Your task to perform on an android device: toggle wifi Image 0: 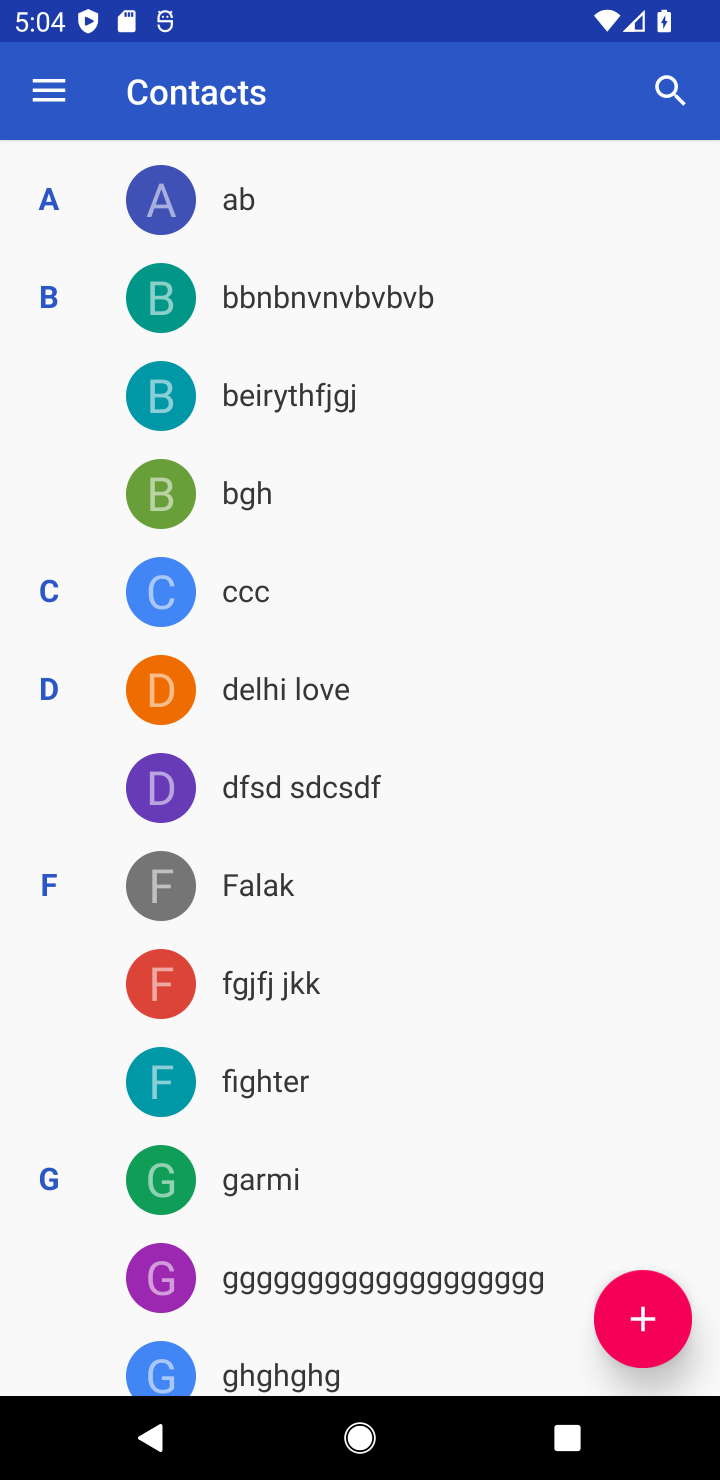
Step 0: press home button
Your task to perform on an android device: toggle wifi Image 1: 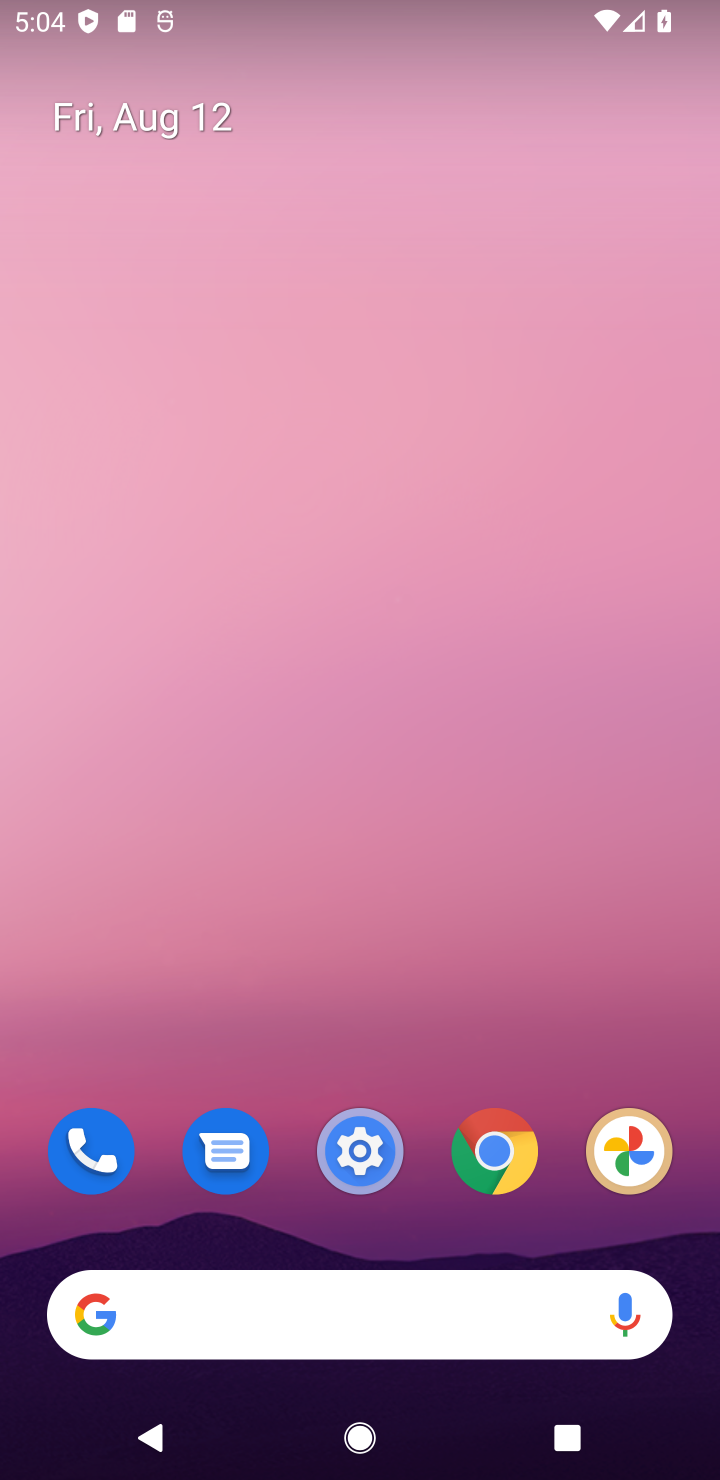
Step 1: drag from (558, 1053) to (521, 156)
Your task to perform on an android device: toggle wifi Image 2: 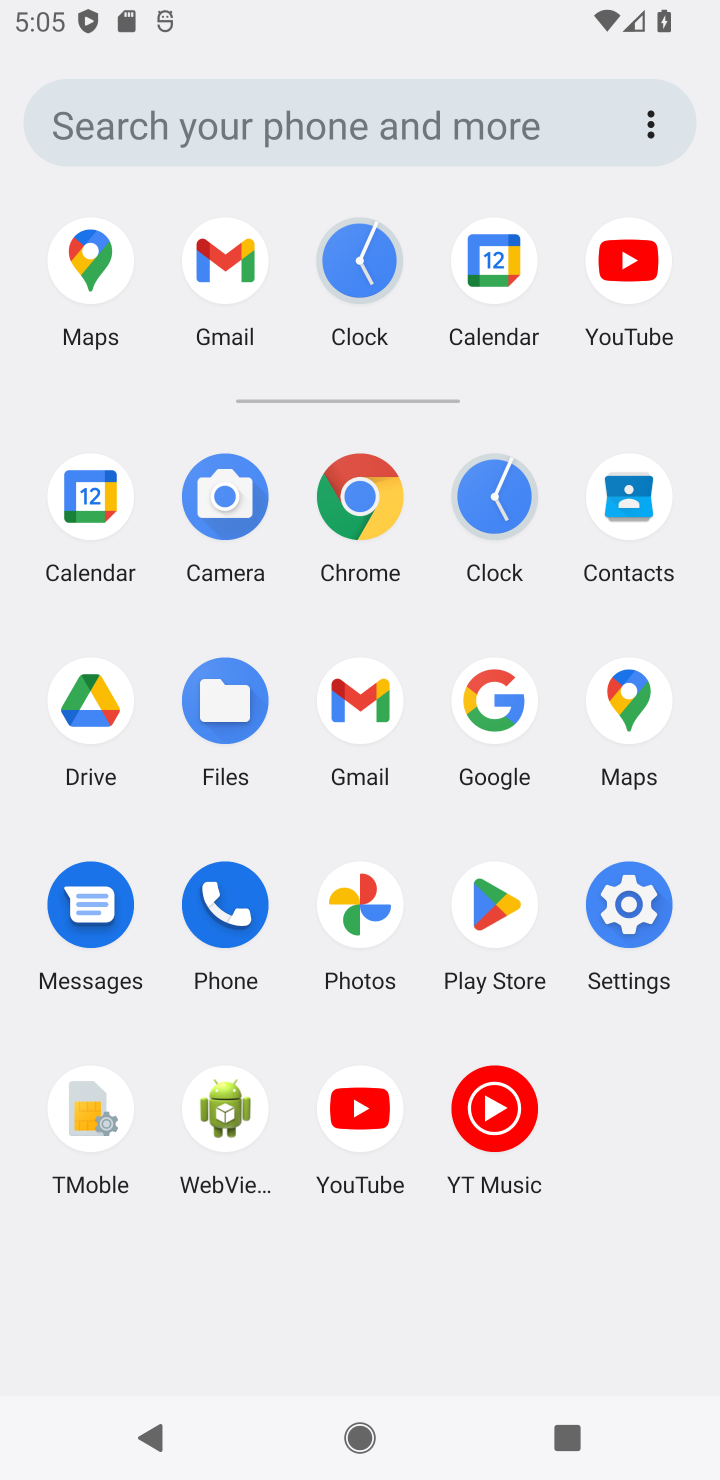
Step 2: click (611, 908)
Your task to perform on an android device: toggle wifi Image 3: 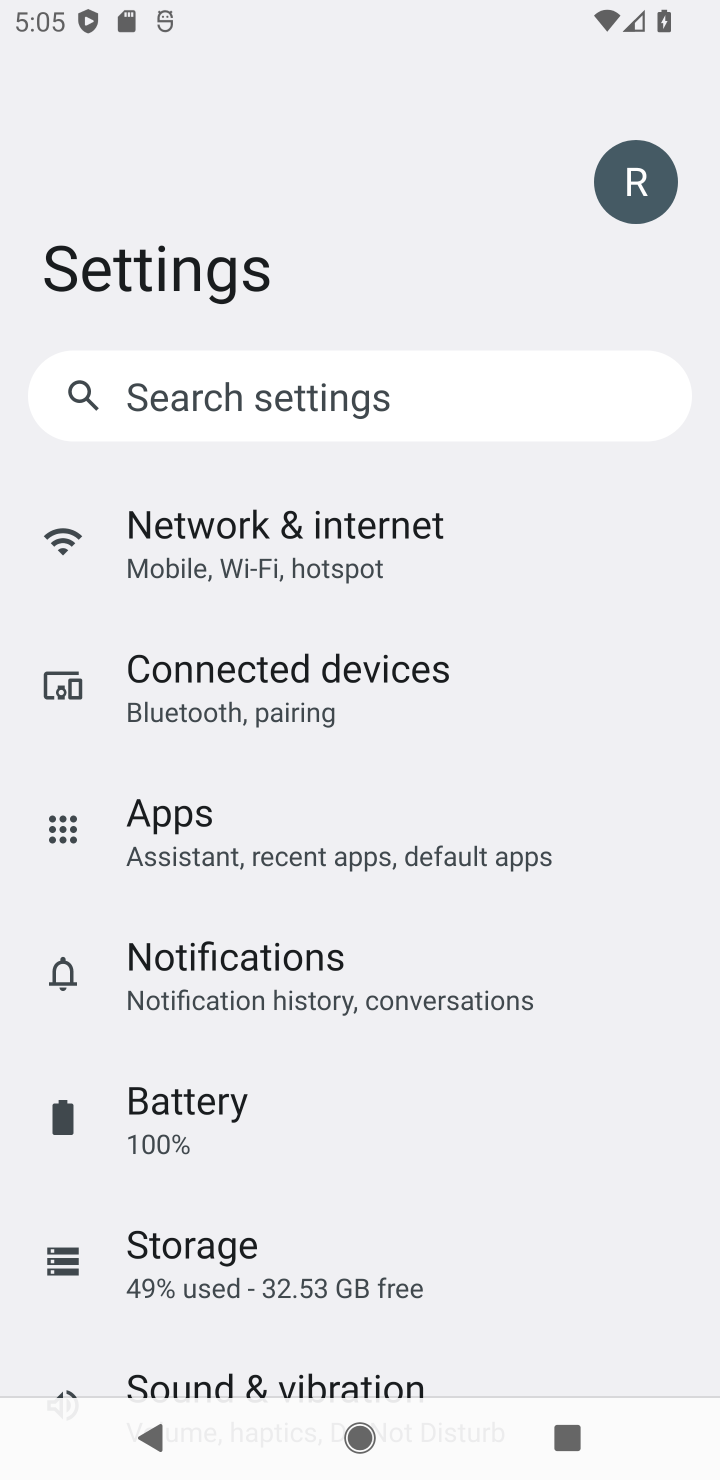
Step 3: click (426, 534)
Your task to perform on an android device: toggle wifi Image 4: 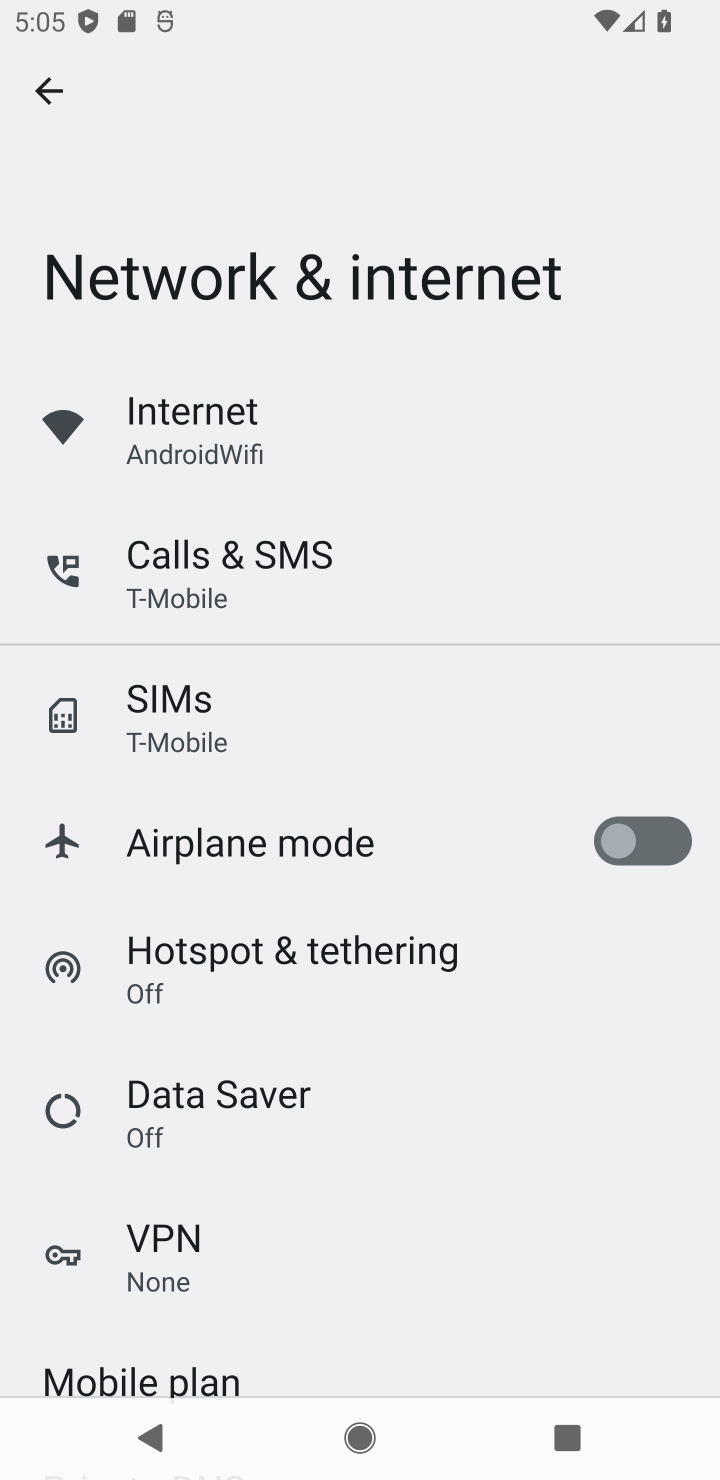
Step 4: click (223, 431)
Your task to perform on an android device: toggle wifi Image 5: 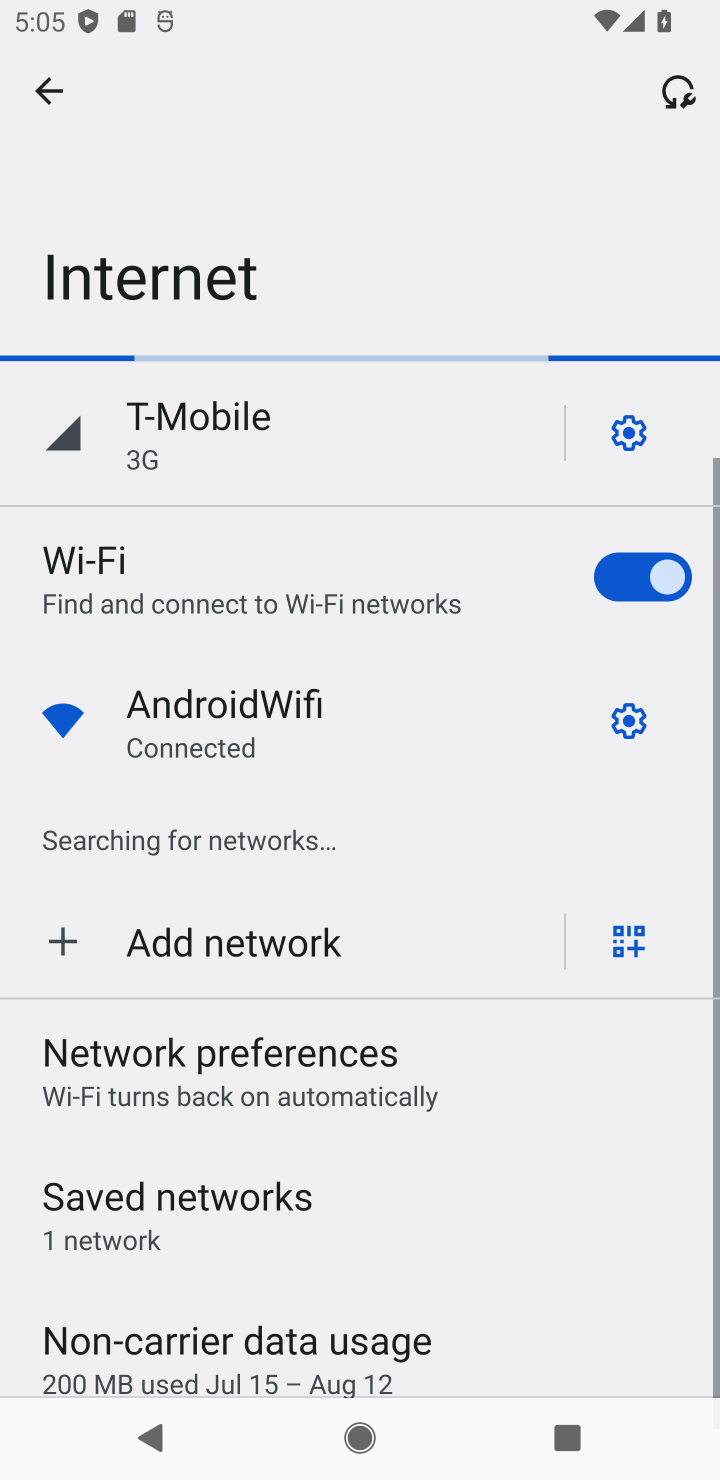
Step 5: click (631, 564)
Your task to perform on an android device: toggle wifi Image 6: 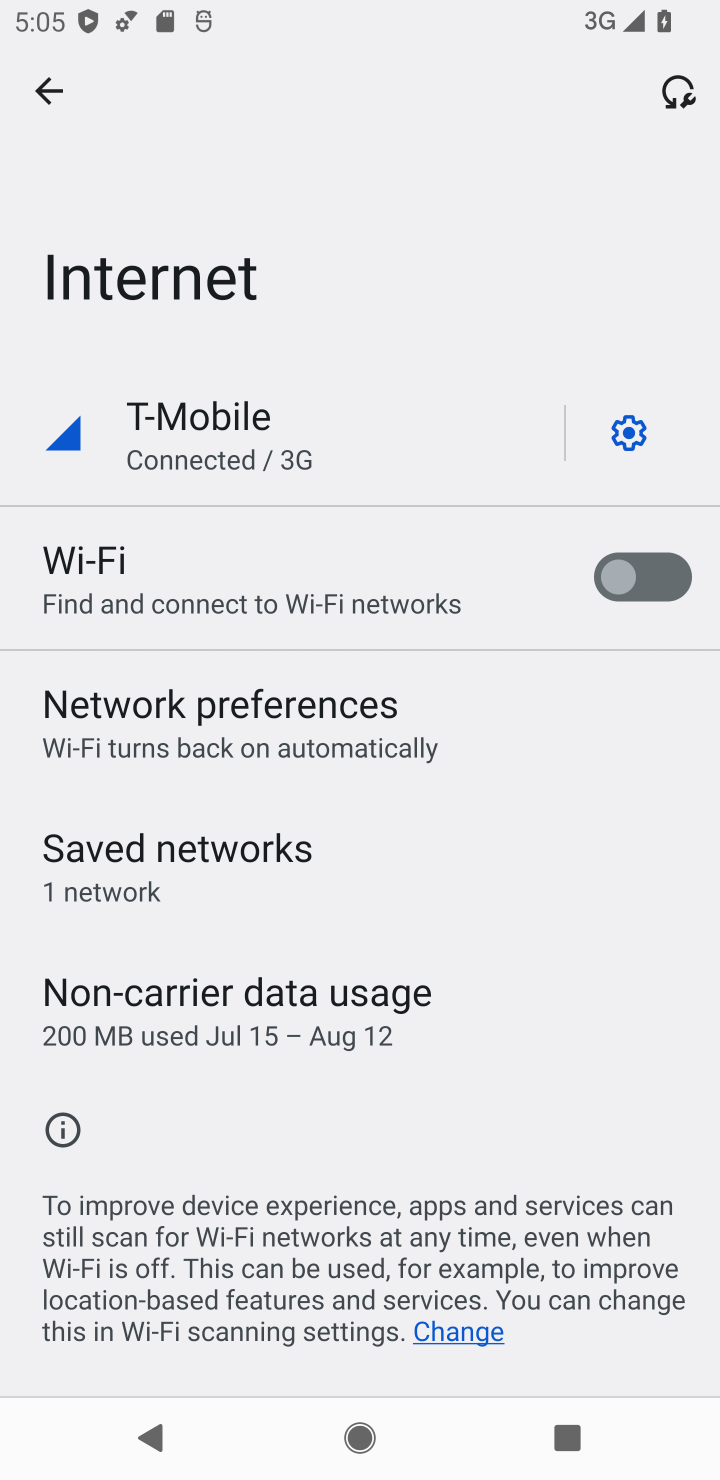
Step 6: task complete